Your task to perform on an android device: Turn off the flashlight Image 0: 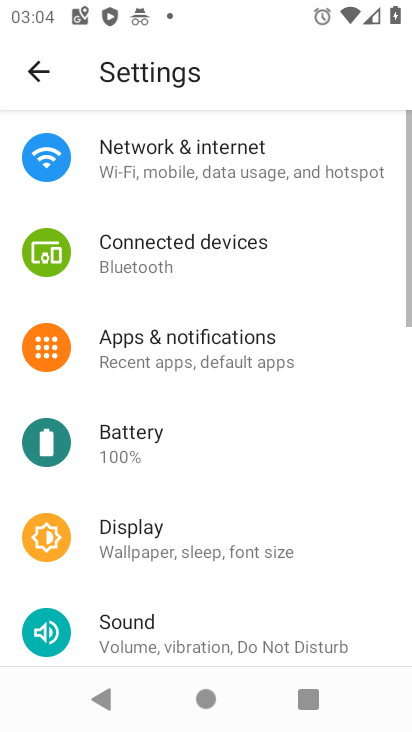
Step 0: drag from (295, 569) to (317, 317)
Your task to perform on an android device: Turn off the flashlight Image 1: 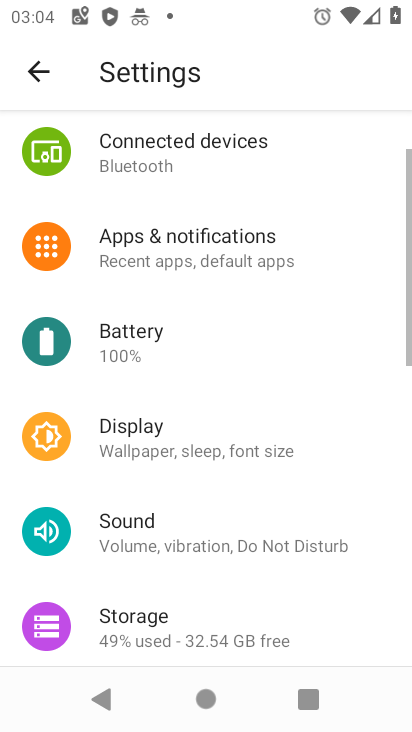
Step 1: task complete